Your task to perform on an android device: Open Reddit.com Image 0: 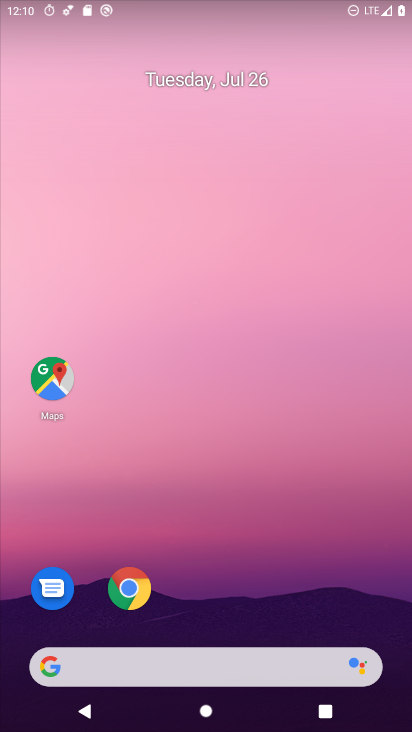
Step 0: press home button
Your task to perform on an android device: Open Reddit.com Image 1: 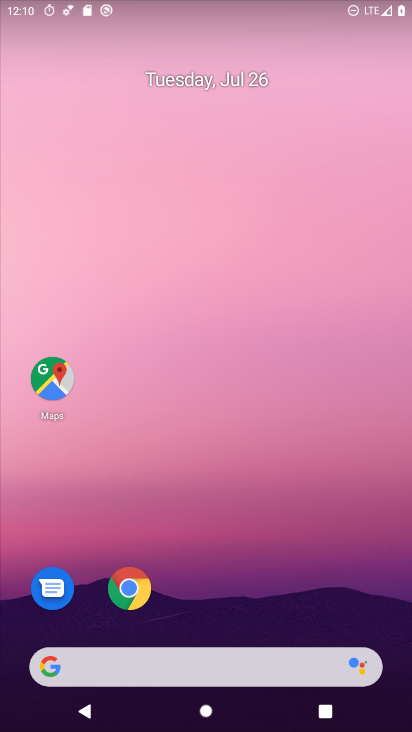
Step 1: click (128, 588)
Your task to perform on an android device: Open Reddit.com Image 2: 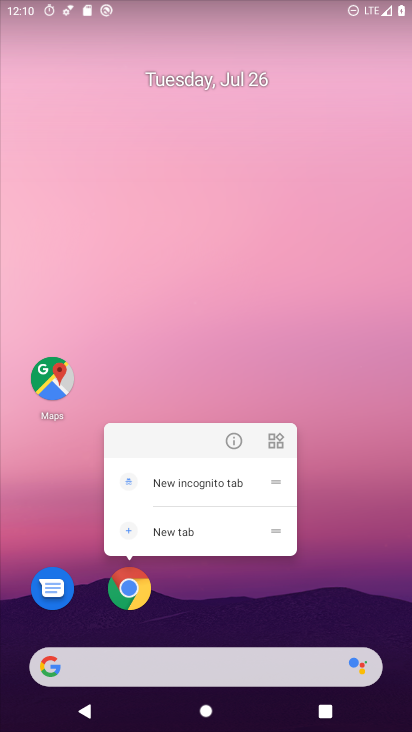
Step 2: click (204, 669)
Your task to perform on an android device: Open Reddit.com Image 3: 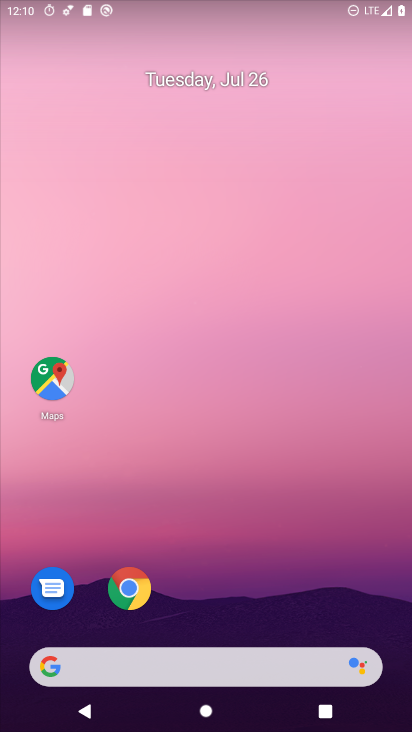
Step 3: click (130, 670)
Your task to perform on an android device: Open Reddit.com Image 4: 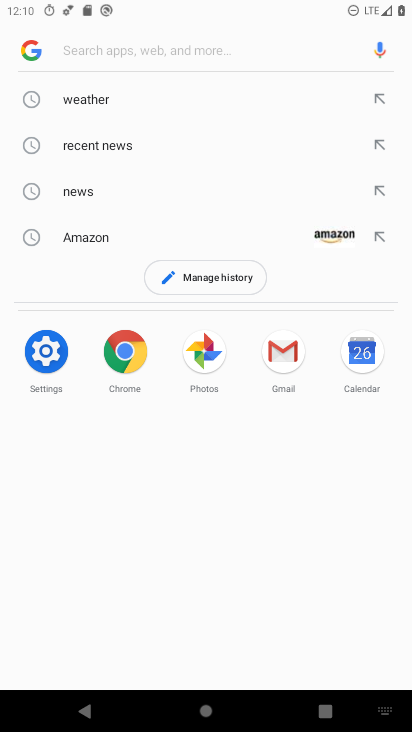
Step 4: click (226, 49)
Your task to perform on an android device: Open Reddit.com Image 5: 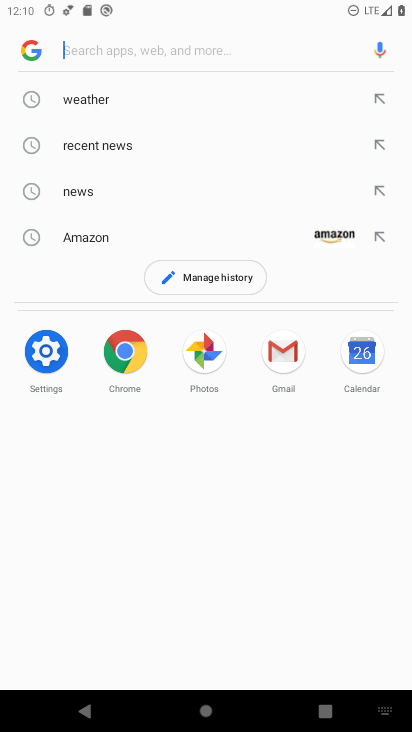
Step 5: type " Reddit.com"
Your task to perform on an android device: Open Reddit.com Image 6: 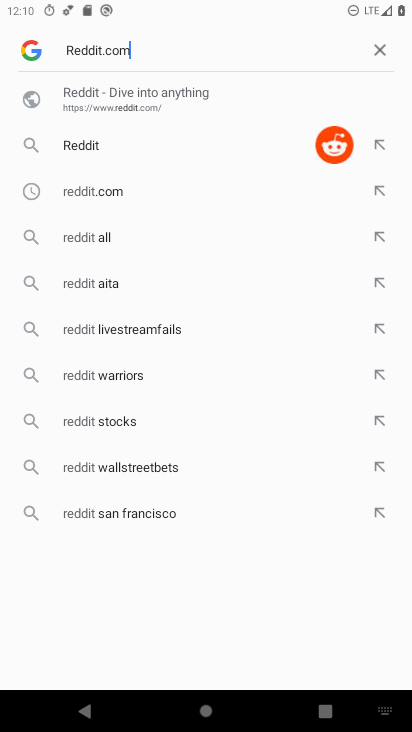
Step 6: type ""
Your task to perform on an android device: Open Reddit.com Image 7: 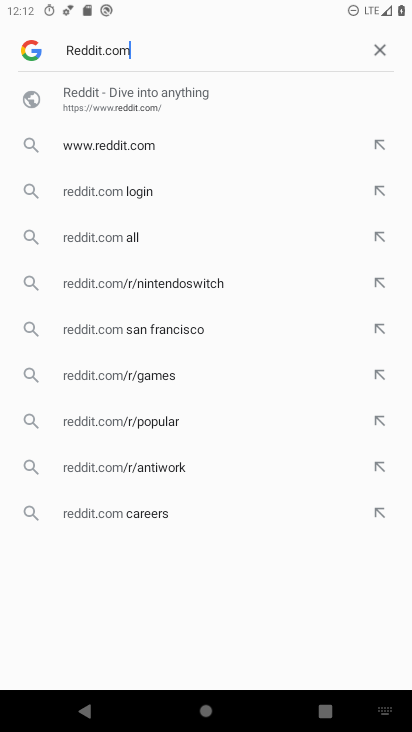
Step 7: click (131, 106)
Your task to perform on an android device: Open Reddit.com Image 8: 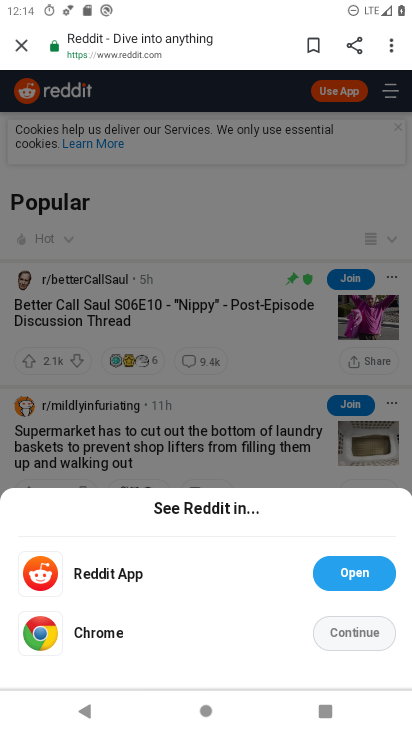
Step 8: task complete